Your task to perform on an android device: Open Android settings Image 0: 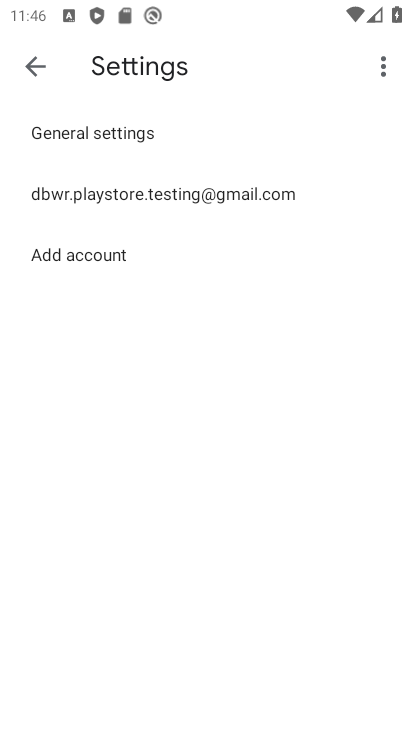
Step 0: press home button
Your task to perform on an android device: Open Android settings Image 1: 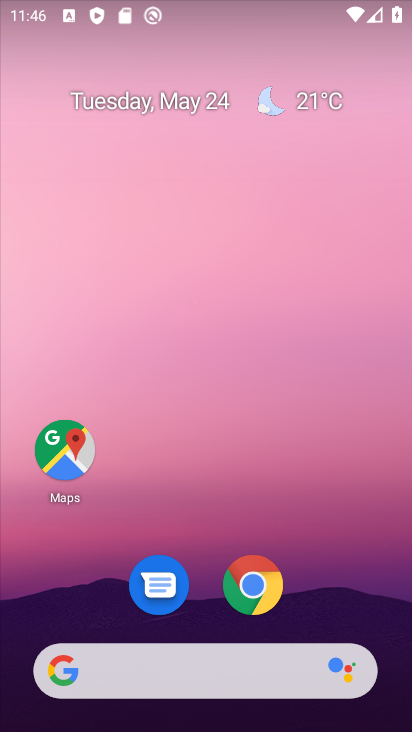
Step 1: drag from (294, 461) to (295, 17)
Your task to perform on an android device: Open Android settings Image 2: 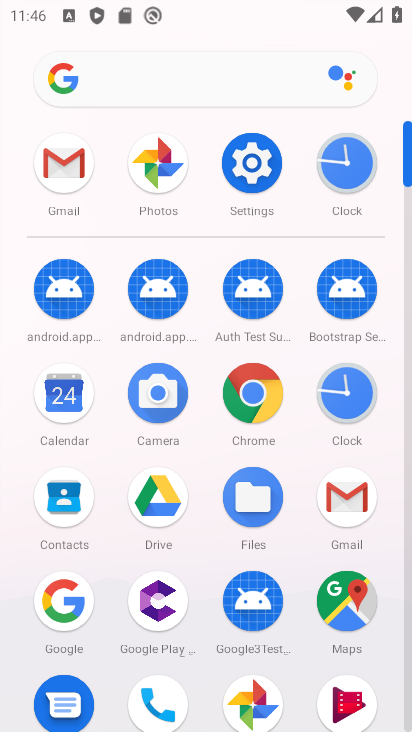
Step 2: click (269, 173)
Your task to perform on an android device: Open Android settings Image 3: 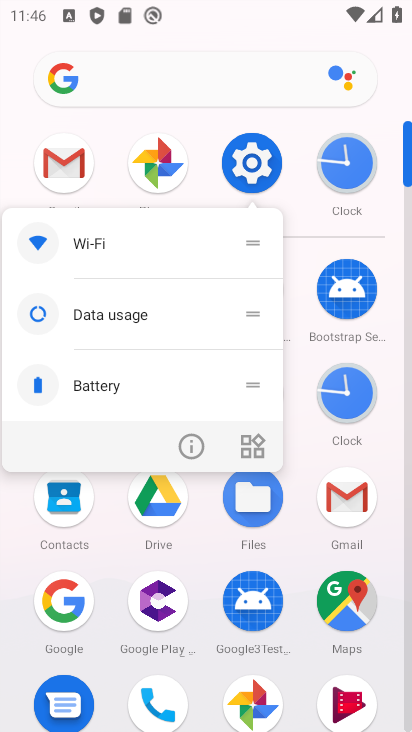
Step 3: click (261, 152)
Your task to perform on an android device: Open Android settings Image 4: 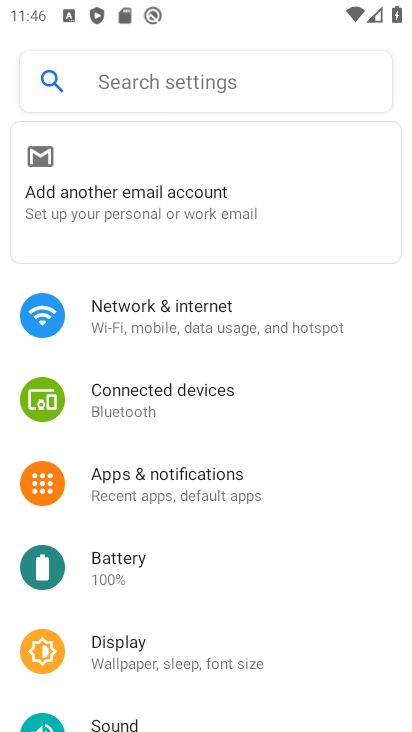
Step 4: drag from (194, 632) to (259, 0)
Your task to perform on an android device: Open Android settings Image 5: 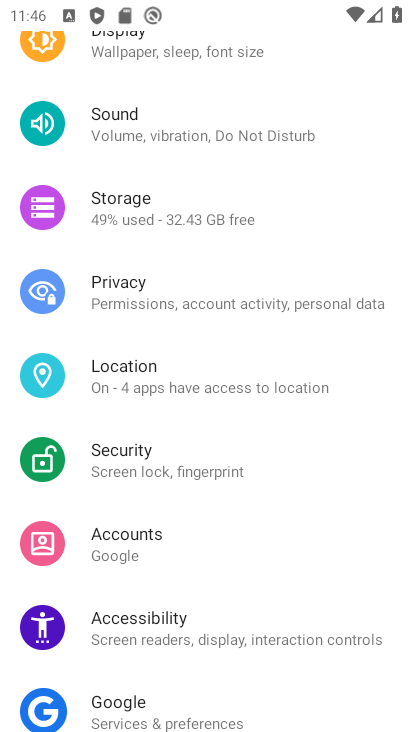
Step 5: drag from (240, 515) to (310, 197)
Your task to perform on an android device: Open Android settings Image 6: 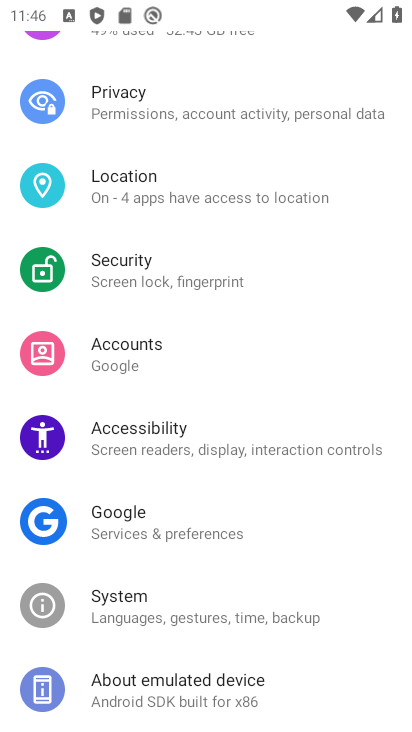
Step 6: click (212, 681)
Your task to perform on an android device: Open Android settings Image 7: 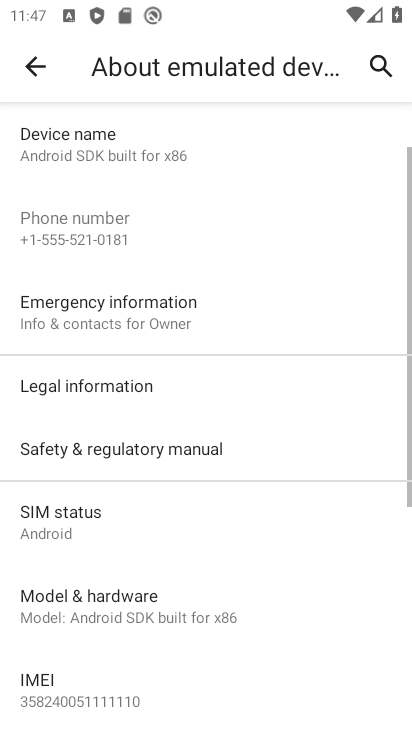
Step 7: task complete